Your task to perform on an android device: change the clock style Image 0: 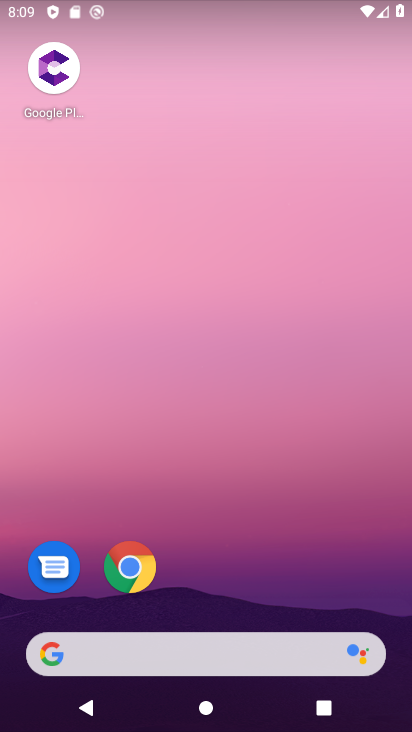
Step 0: drag from (177, 610) to (169, 34)
Your task to perform on an android device: change the clock style Image 1: 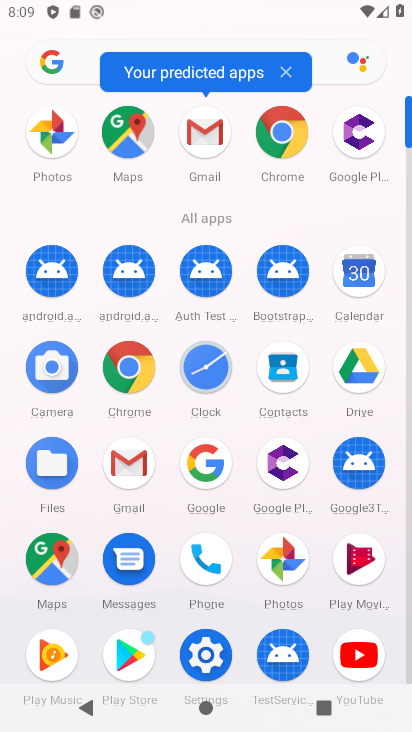
Step 1: click (224, 352)
Your task to perform on an android device: change the clock style Image 2: 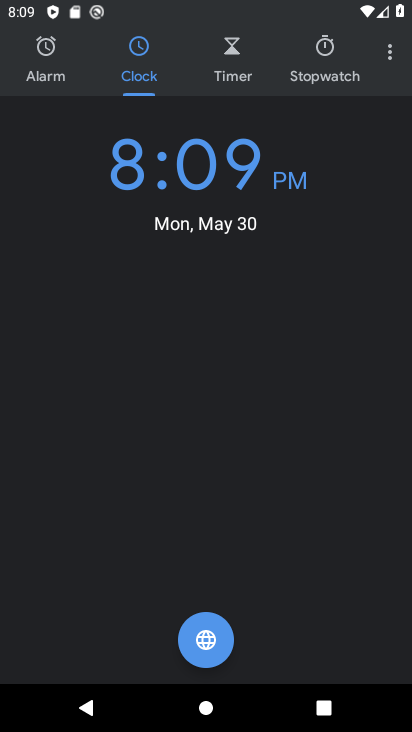
Step 2: click (401, 50)
Your task to perform on an android device: change the clock style Image 3: 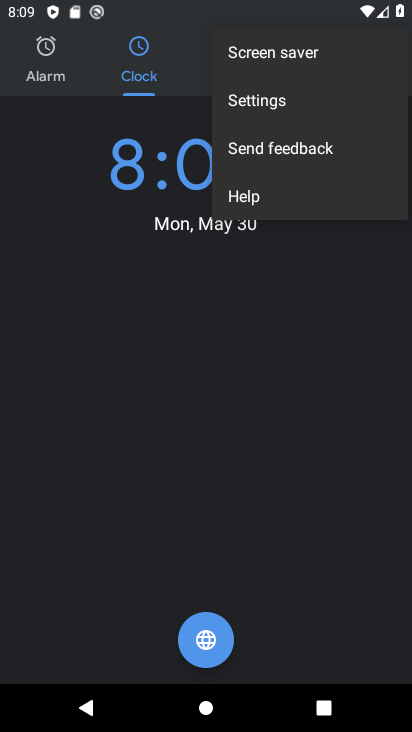
Step 3: click (267, 113)
Your task to perform on an android device: change the clock style Image 4: 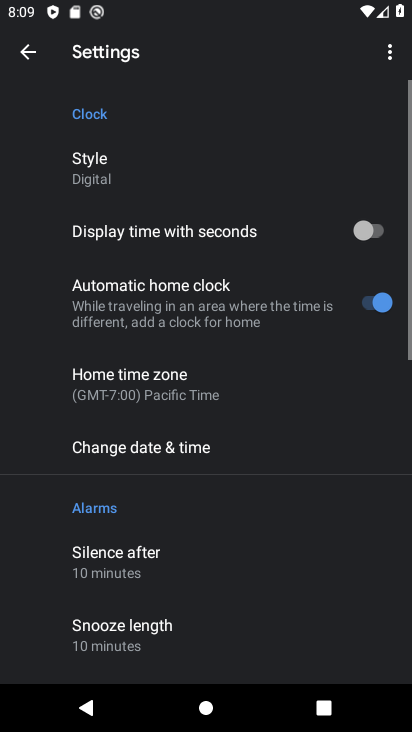
Step 4: click (113, 175)
Your task to perform on an android device: change the clock style Image 5: 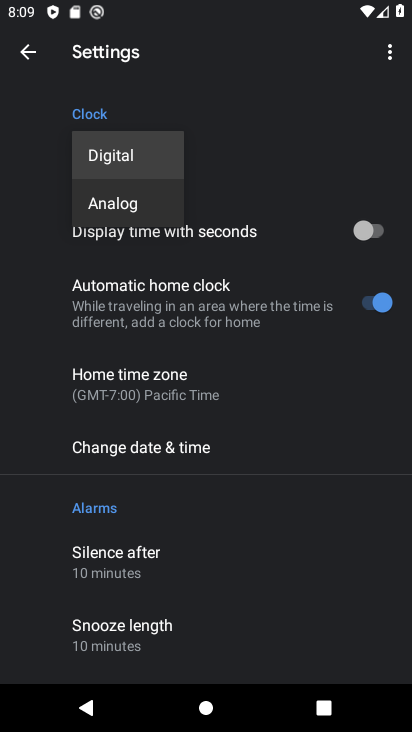
Step 5: click (123, 194)
Your task to perform on an android device: change the clock style Image 6: 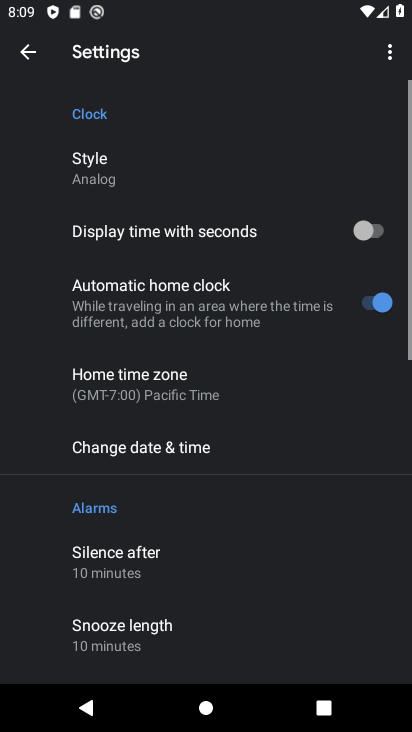
Step 6: task complete